Your task to perform on an android device: What's the weather today? Image 0: 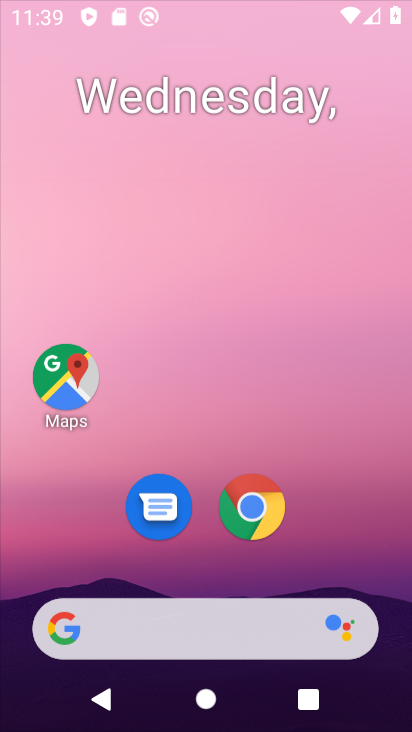
Step 0: drag from (346, 237) to (346, 161)
Your task to perform on an android device: What's the weather today? Image 1: 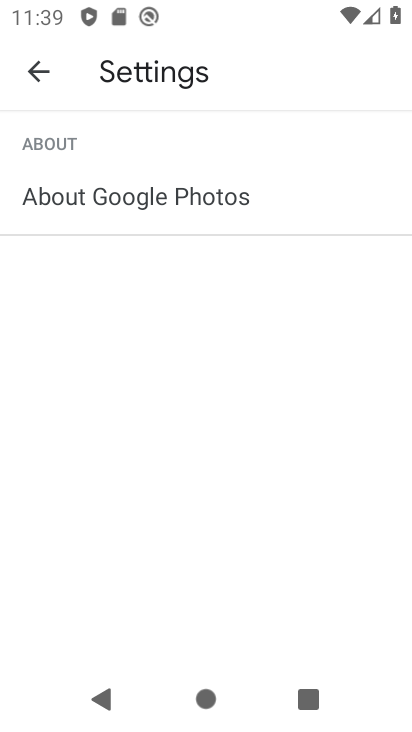
Step 1: press home button
Your task to perform on an android device: What's the weather today? Image 2: 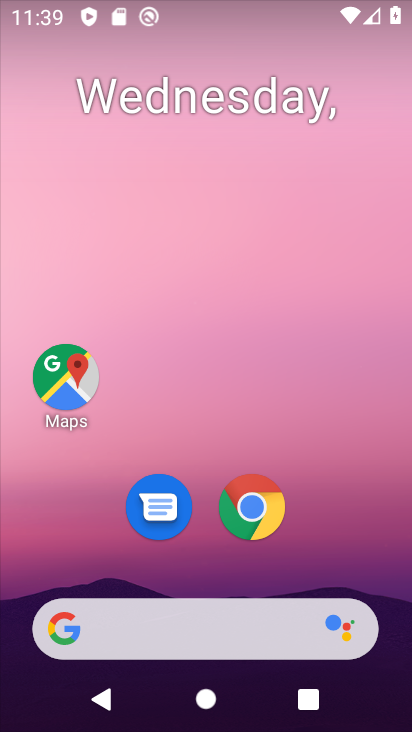
Step 2: drag from (348, 540) to (348, 436)
Your task to perform on an android device: What's the weather today? Image 3: 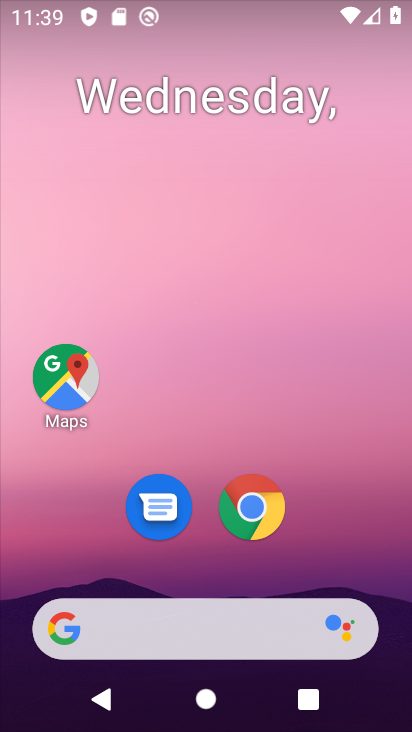
Step 3: click (226, 615)
Your task to perform on an android device: What's the weather today? Image 4: 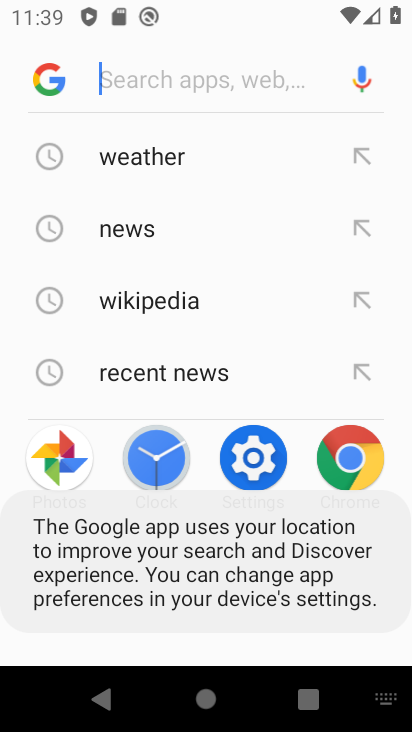
Step 4: click (223, 150)
Your task to perform on an android device: What's the weather today? Image 5: 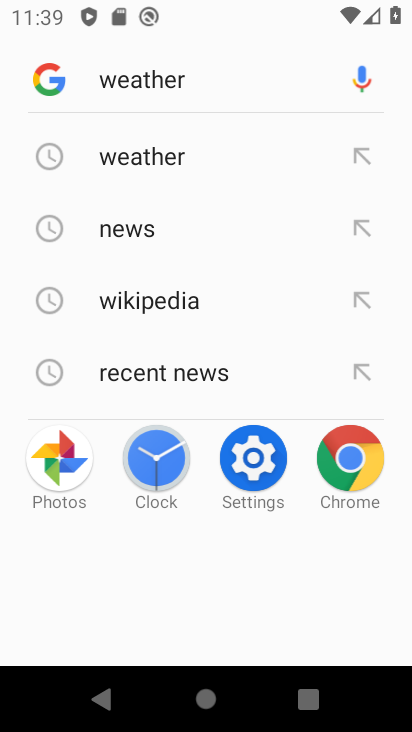
Step 5: task complete